Your task to perform on an android device: make emails show in primary in the gmail app Image 0: 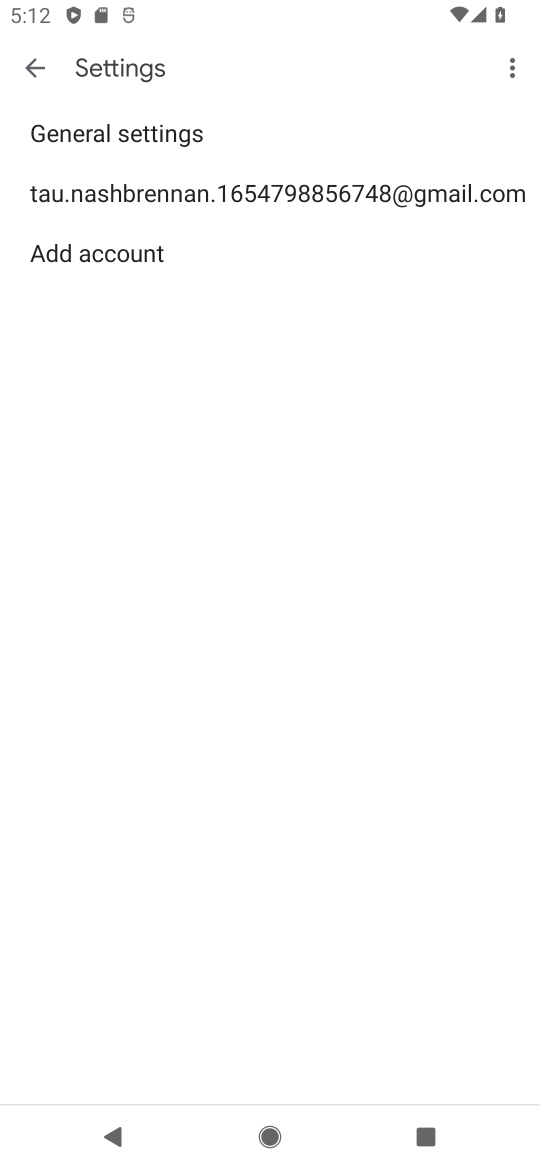
Step 0: click (147, 190)
Your task to perform on an android device: make emails show in primary in the gmail app Image 1: 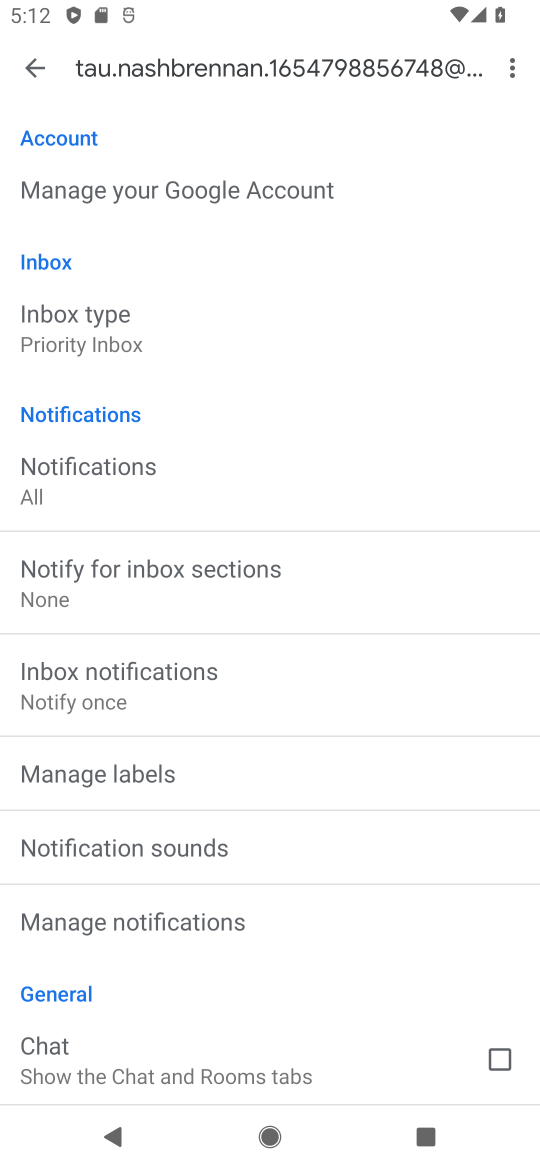
Step 1: click (121, 330)
Your task to perform on an android device: make emails show in primary in the gmail app Image 2: 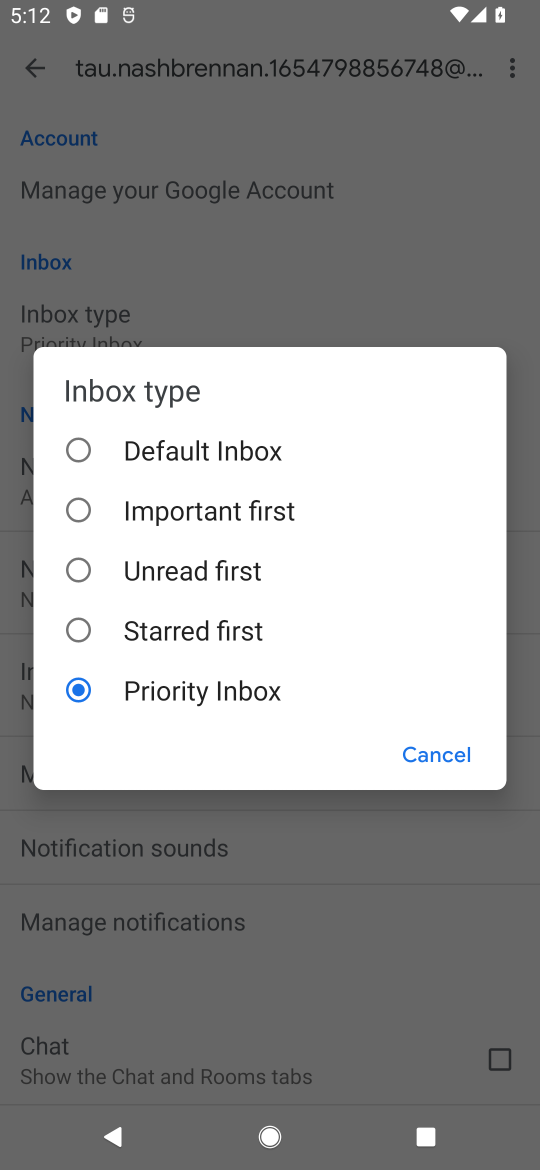
Step 2: click (145, 430)
Your task to perform on an android device: make emails show in primary in the gmail app Image 3: 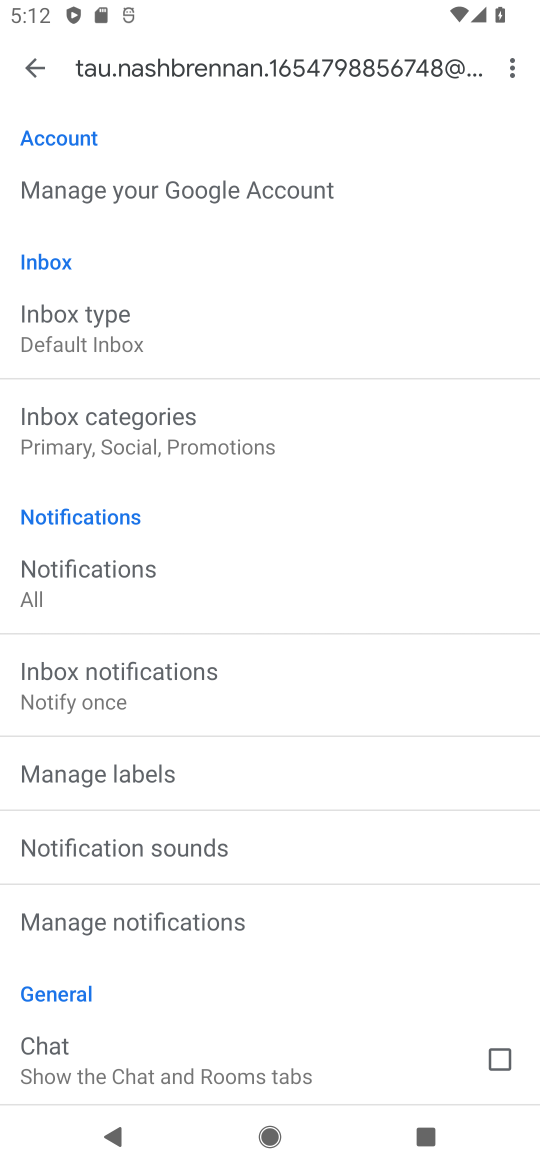
Step 3: click (145, 430)
Your task to perform on an android device: make emails show in primary in the gmail app Image 4: 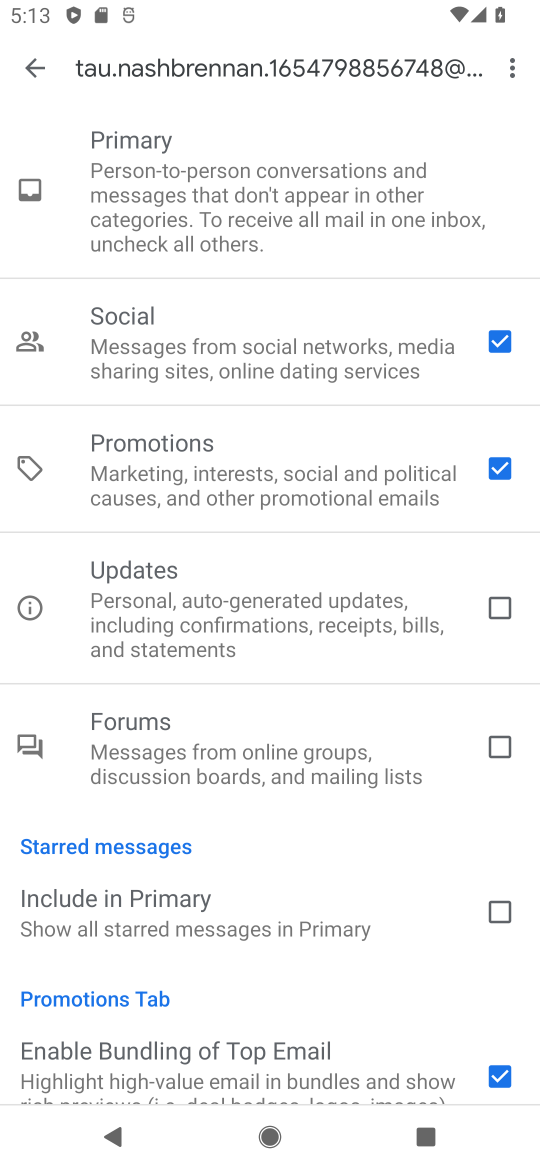
Step 4: drag from (194, 157) to (199, 475)
Your task to perform on an android device: make emails show in primary in the gmail app Image 5: 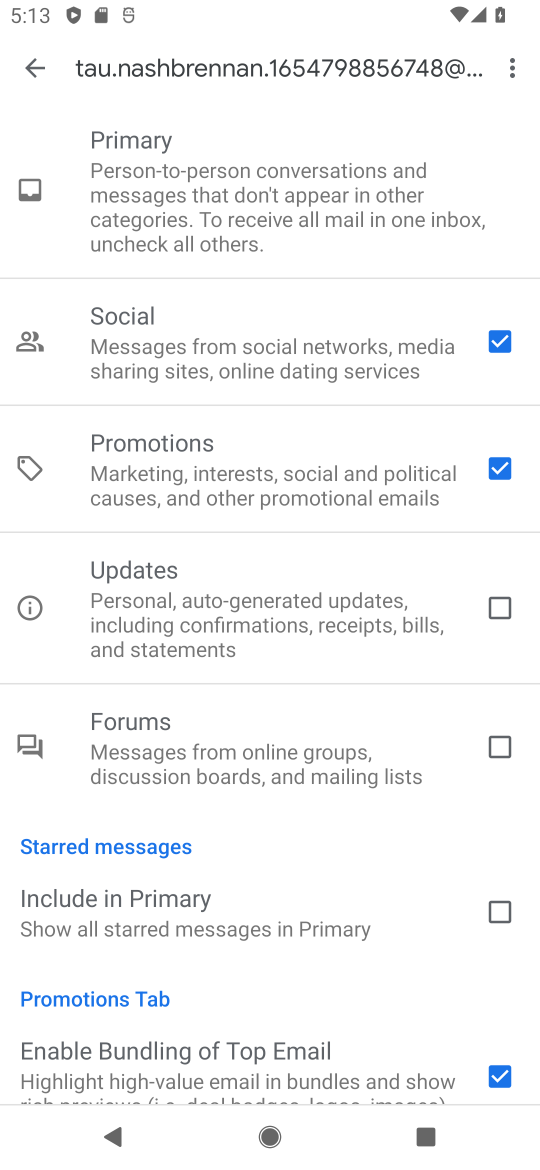
Step 5: click (496, 469)
Your task to perform on an android device: make emails show in primary in the gmail app Image 6: 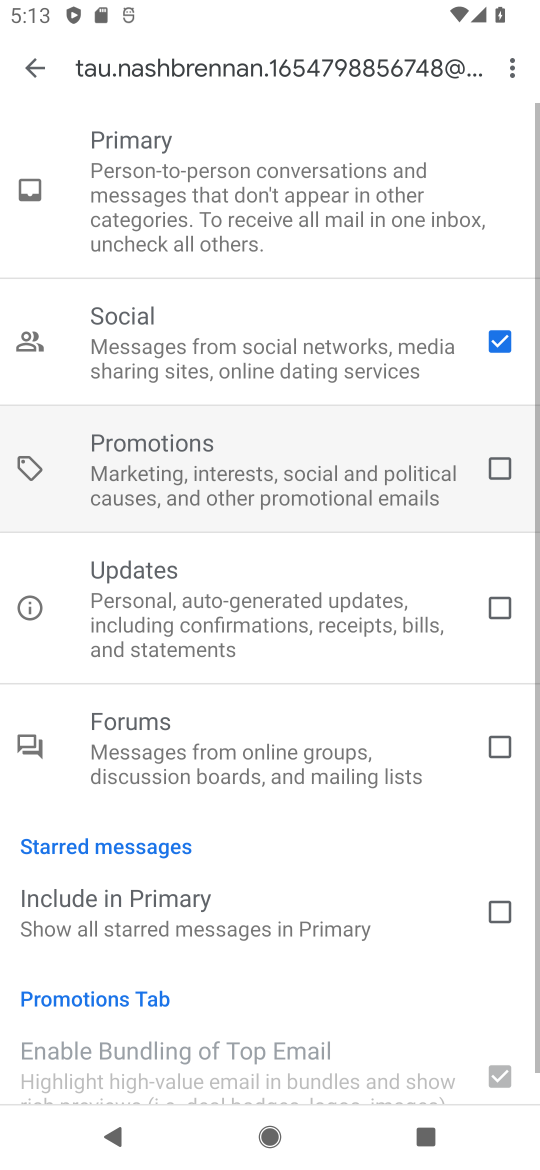
Step 6: click (496, 340)
Your task to perform on an android device: make emails show in primary in the gmail app Image 7: 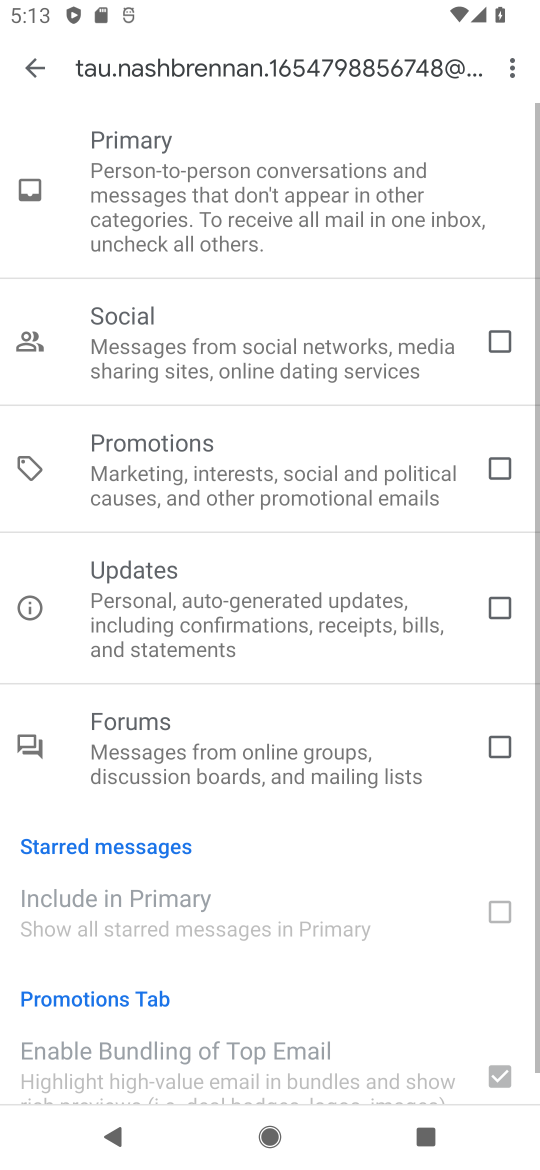
Step 7: click (40, 77)
Your task to perform on an android device: make emails show in primary in the gmail app Image 8: 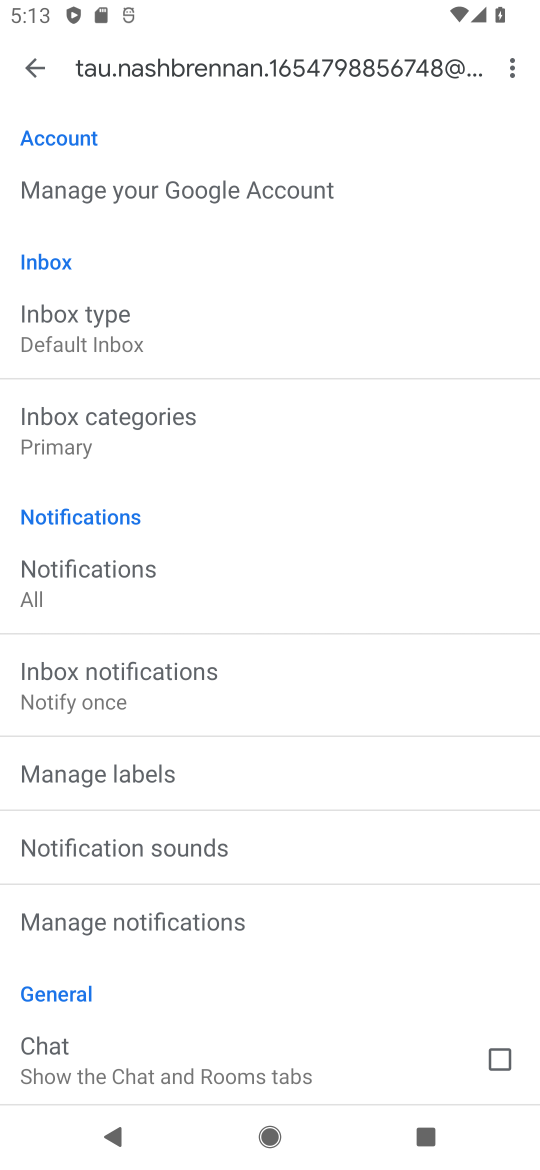
Step 8: task complete